Your task to perform on an android device: empty trash in the gmail app Image 0: 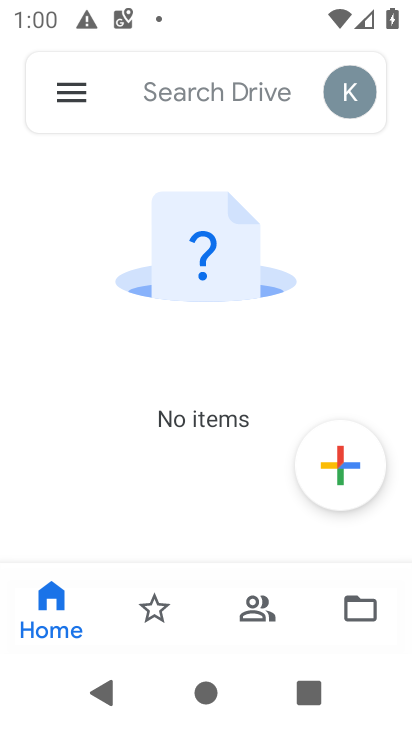
Step 0: press home button
Your task to perform on an android device: empty trash in the gmail app Image 1: 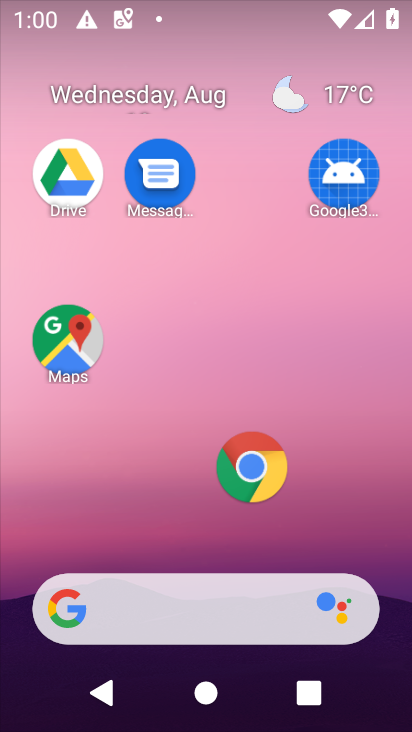
Step 1: drag from (200, 325) to (190, 116)
Your task to perform on an android device: empty trash in the gmail app Image 2: 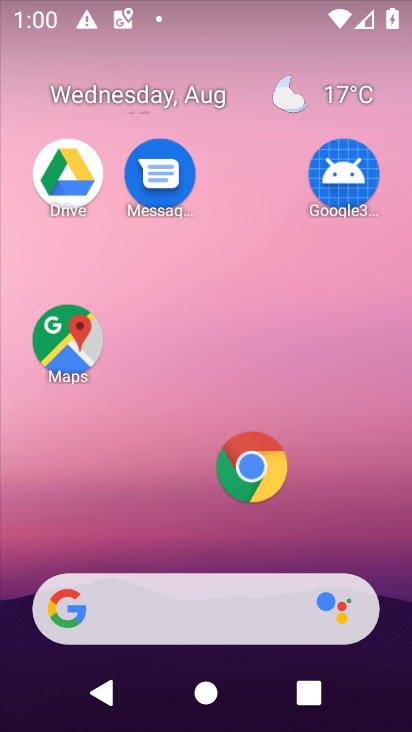
Step 2: drag from (218, 551) to (195, 111)
Your task to perform on an android device: empty trash in the gmail app Image 3: 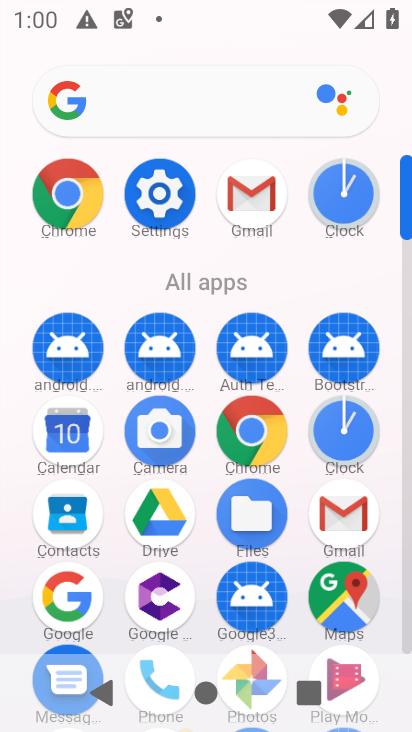
Step 3: click (245, 212)
Your task to perform on an android device: empty trash in the gmail app Image 4: 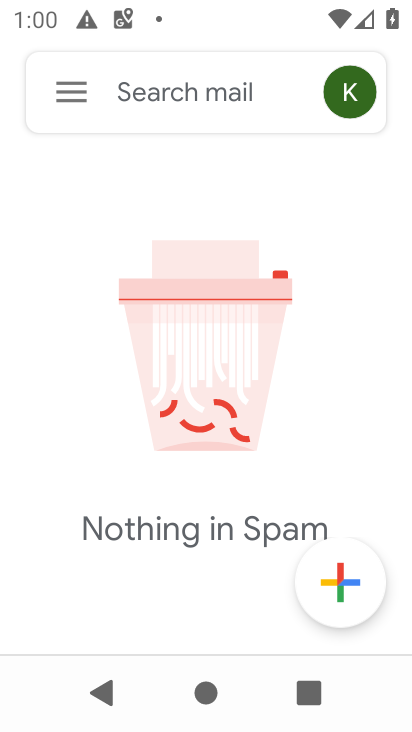
Step 4: click (85, 106)
Your task to perform on an android device: empty trash in the gmail app Image 5: 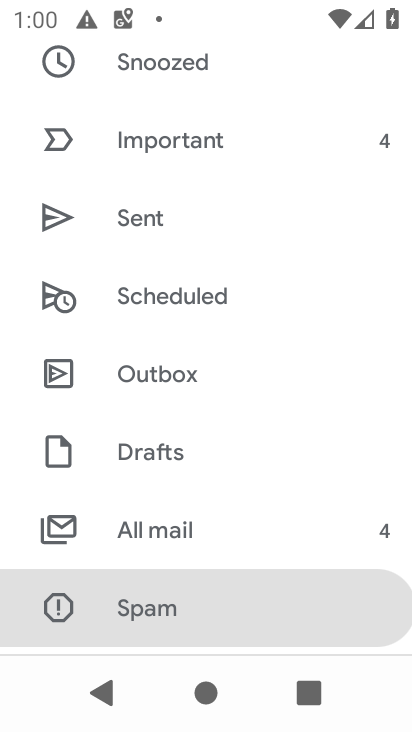
Step 5: drag from (269, 469) to (286, 108)
Your task to perform on an android device: empty trash in the gmail app Image 6: 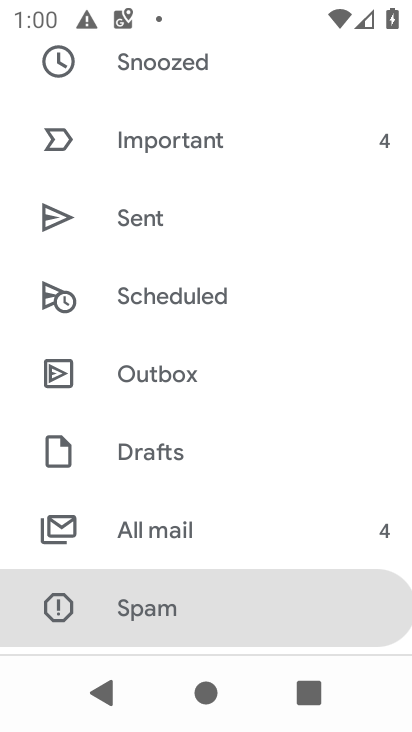
Step 6: drag from (251, 381) to (270, 132)
Your task to perform on an android device: empty trash in the gmail app Image 7: 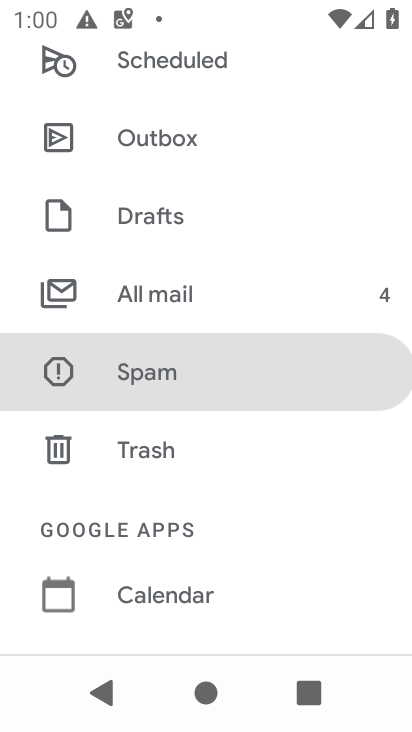
Step 7: drag from (234, 529) to (237, 248)
Your task to perform on an android device: empty trash in the gmail app Image 8: 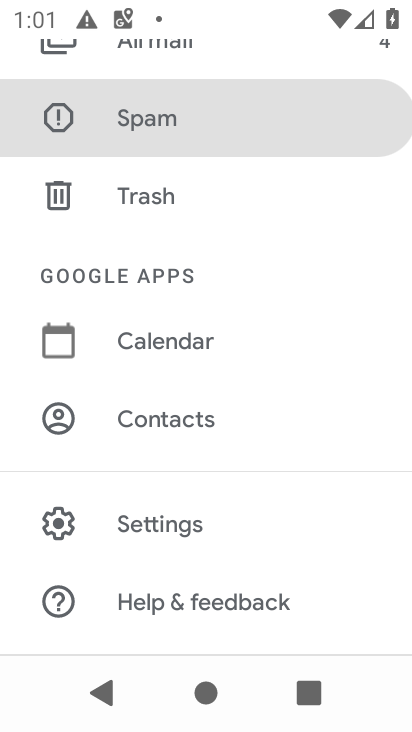
Step 8: drag from (250, 204) to (226, 542)
Your task to perform on an android device: empty trash in the gmail app Image 9: 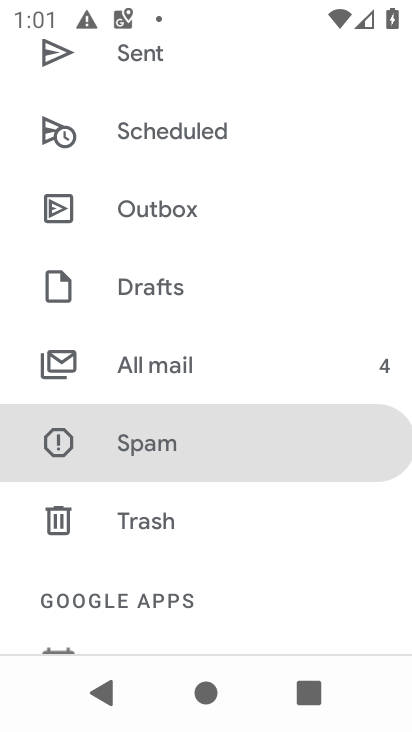
Step 9: click (230, 198)
Your task to perform on an android device: empty trash in the gmail app Image 10: 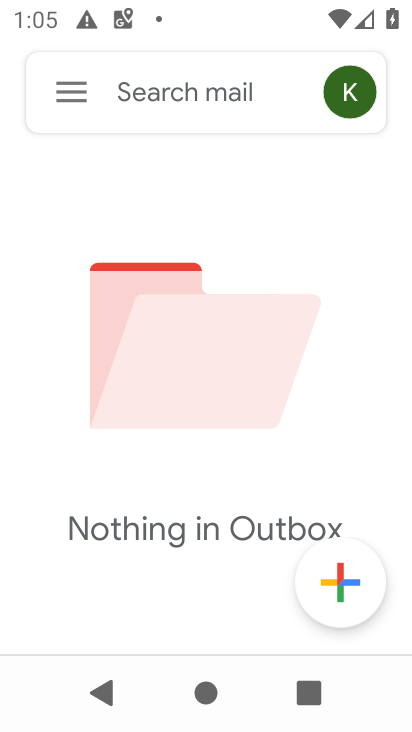
Step 10: click (82, 88)
Your task to perform on an android device: empty trash in the gmail app Image 11: 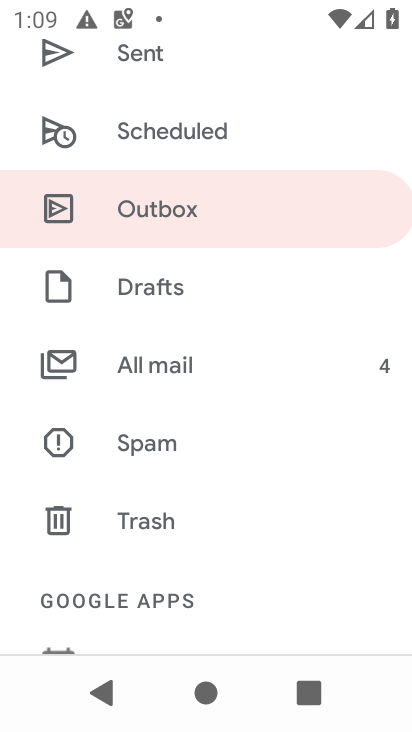
Step 11: click (249, 527)
Your task to perform on an android device: empty trash in the gmail app Image 12: 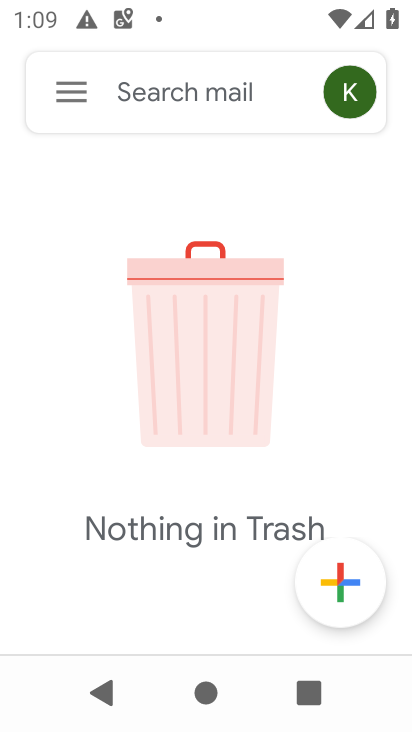
Step 12: task complete